Your task to perform on an android device: empty trash in the gmail app Image 0: 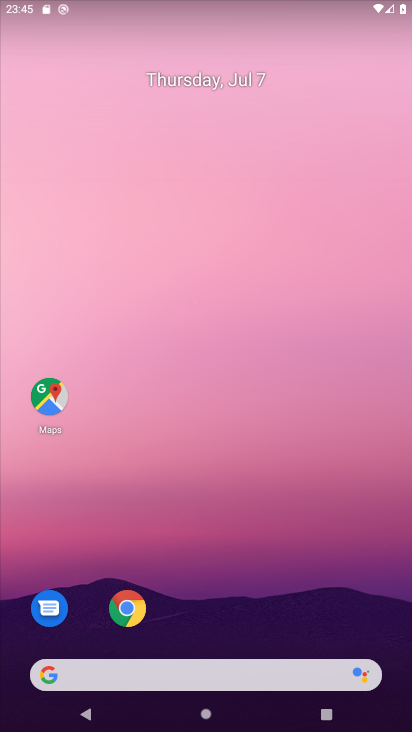
Step 0: click (221, 296)
Your task to perform on an android device: empty trash in the gmail app Image 1: 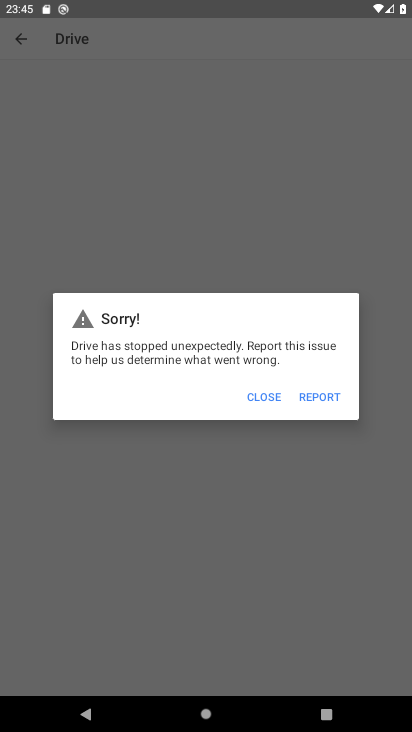
Step 1: press home button
Your task to perform on an android device: empty trash in the gmail app Image 2: 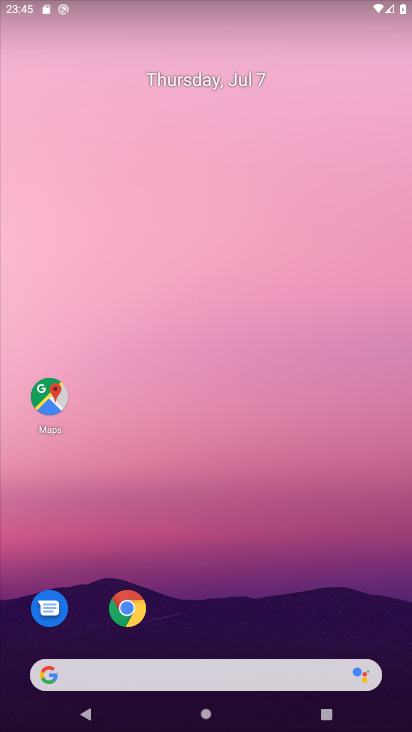
Step 2: drag from (254, 616) to (240, 56)
Your task to perform on an android device: empty trash in the gmail app Image 3: 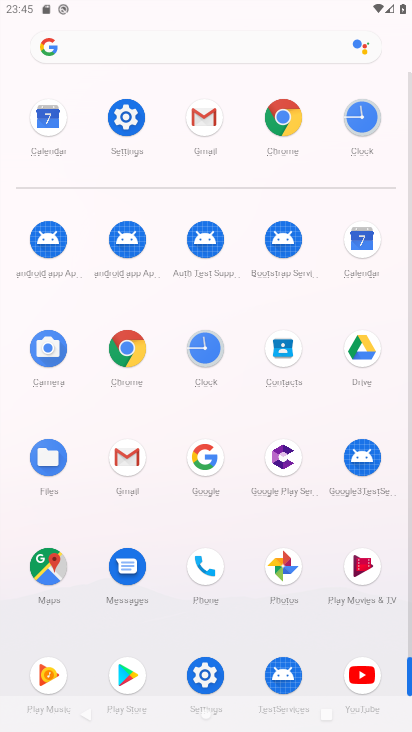
Step 3: click (210, 103)
Your task to perform on an android device: empty trash in the gmail app Image 4: 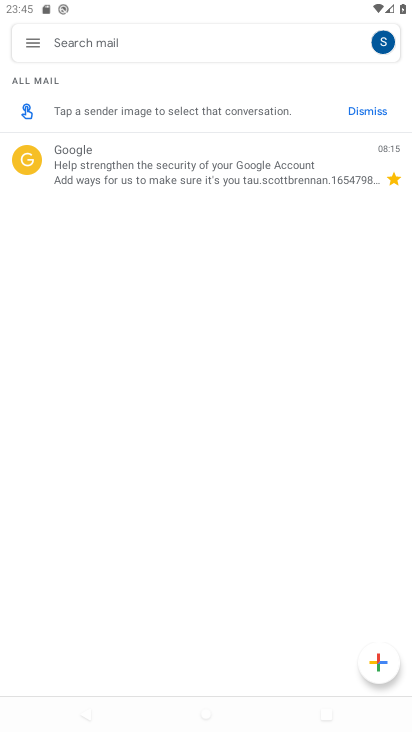
Step 4: click (23, 41)
Your task to perform on an android device: empty trash in the gmail app Image 5: 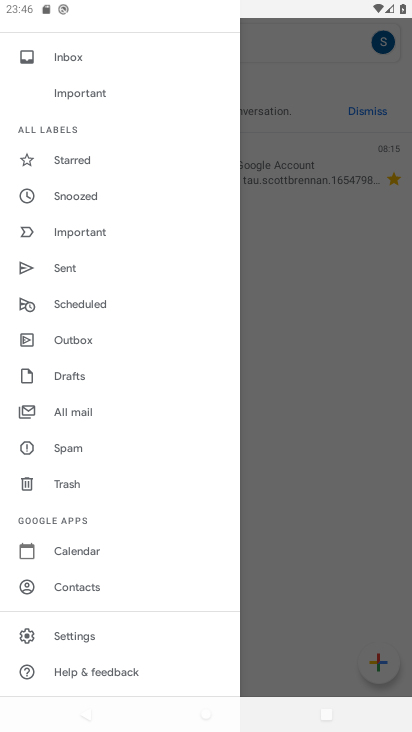
Step 5: click (75, 489)
Your task to perform on an android device: empty trash in the gmail app Image 6: 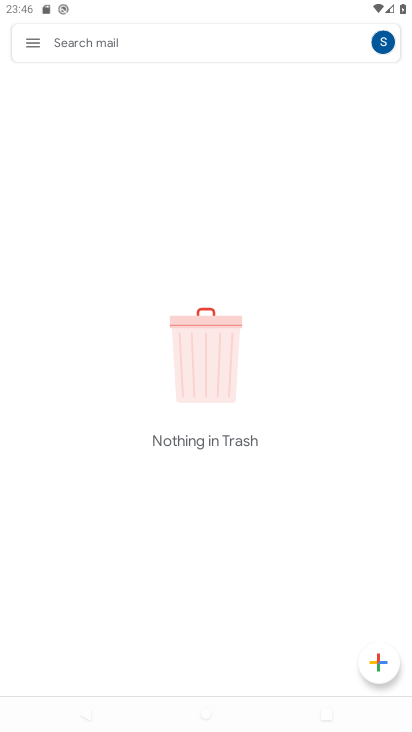
Step 6: task complete